Your task to perform on an android device: Check the news Image 0: 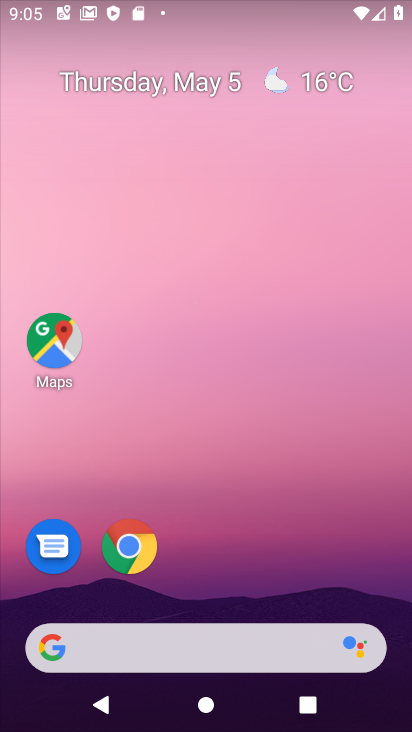
Step 0: drag from (269, 595) to (311, 16)
Your task to perform on an android device: Check the news Image 1: 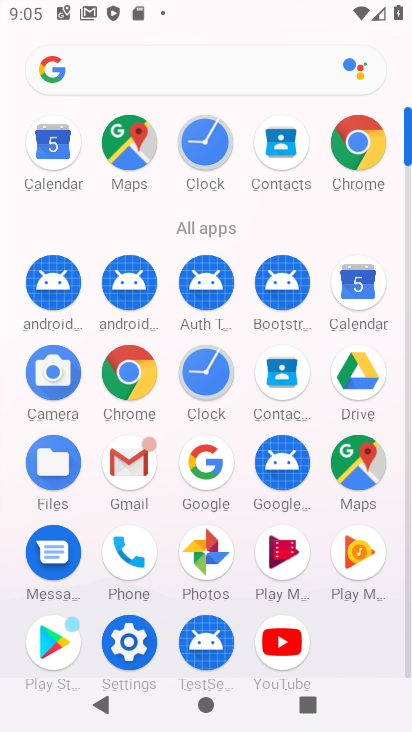
Step 1: click (190, 60)
Your task to perform on an android device: Check the news Image 2: 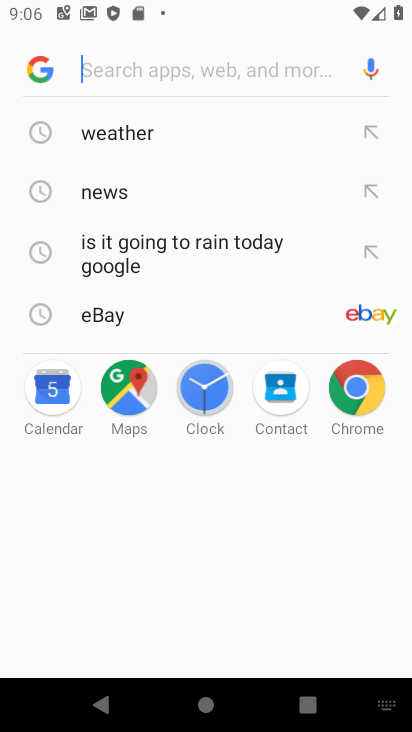
Step 2: type "news"
Your task to perform on an android device: Check the news Image 3: 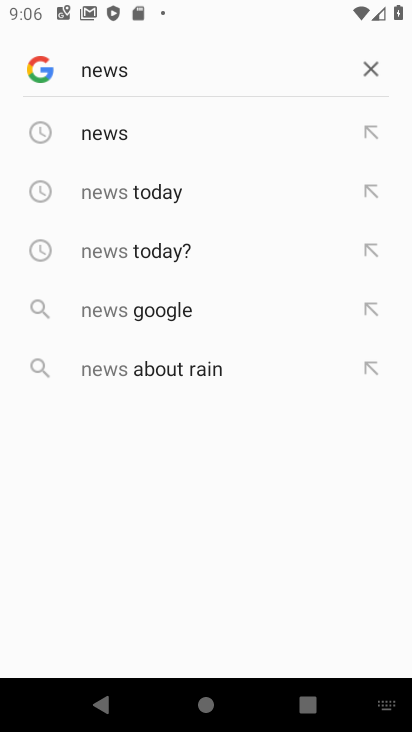
Step 3: click (93, 142)
Your task to perform on an android device: Check the news Image 4: 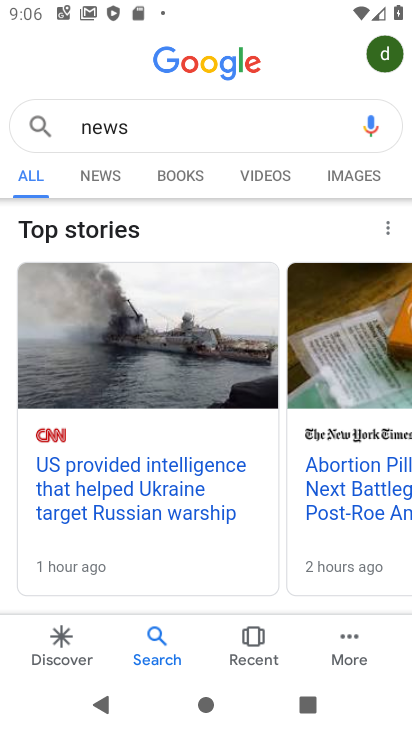
Step 4: click (95, 179)
Your task to perform on an android device: Check the news Image 5: 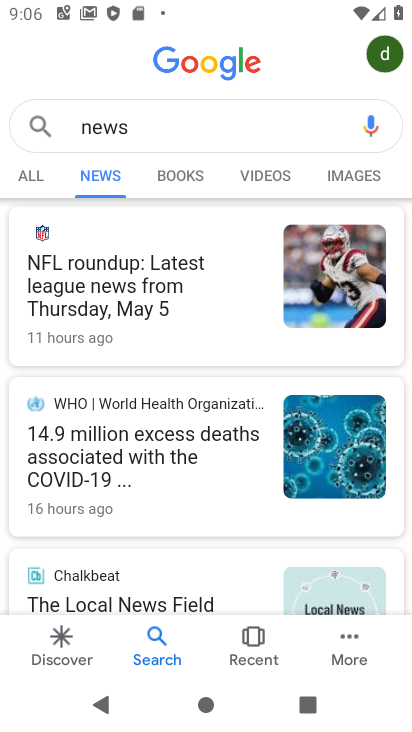
Step 5: task complete